Your task to perform on an android device: open chrome privacy settings Image 0: 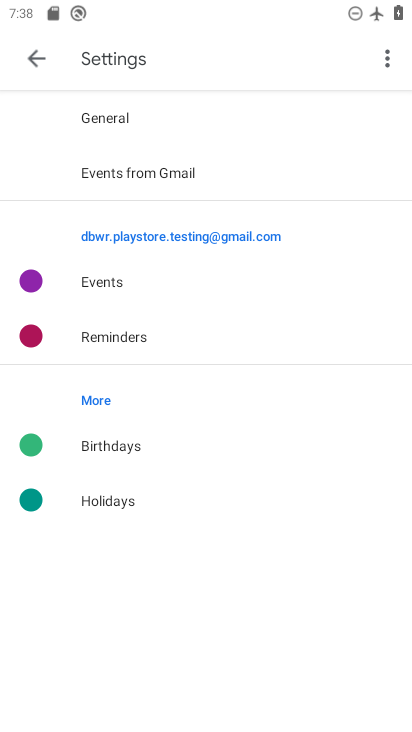
Step 0: drag from (275, 617) to (264, 517)
Your task to perform on an android device: open chrome privacy settings Image 1: 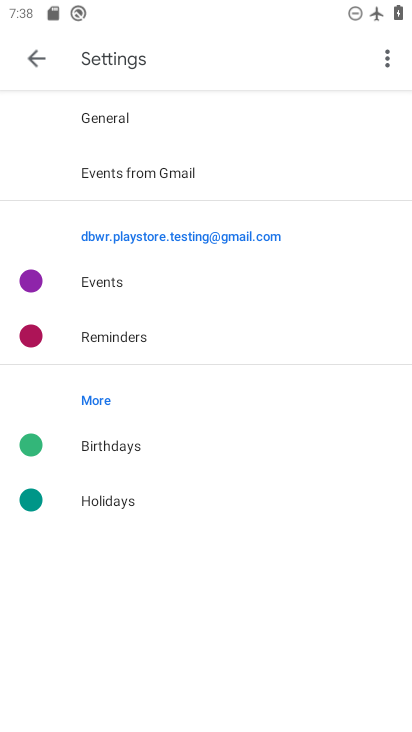
Step 1: press home button
Your task to perform on an android device: open chrome privacy settings Image 2: 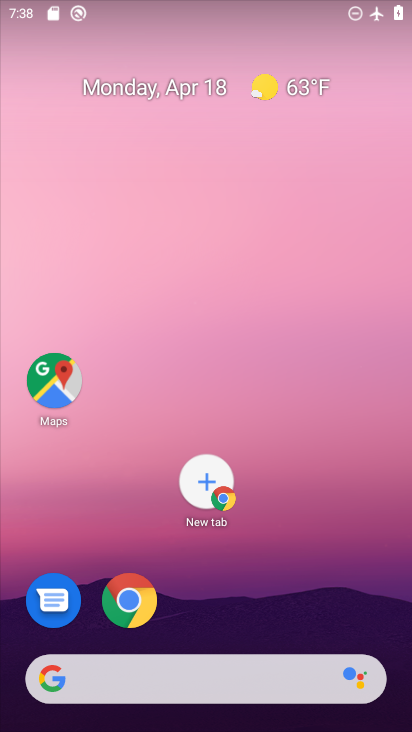
Step 2: click (135, 599)
Your task to perform on an android device: open chrome privacy settings Image 3: 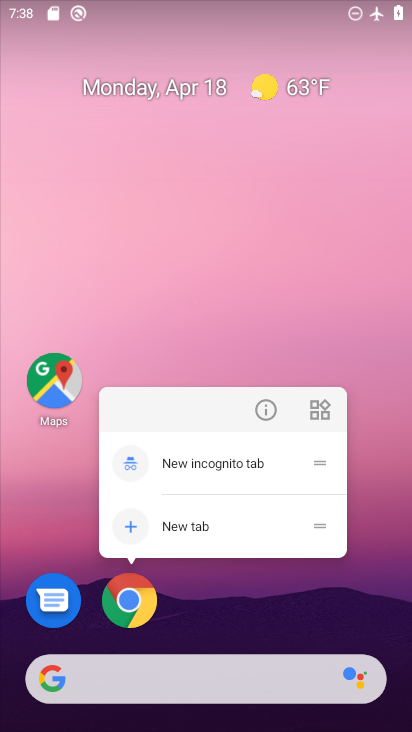
Step 3: click (138, 600)
Your task to perform on an android device: open chrome privacy settings Image 4: 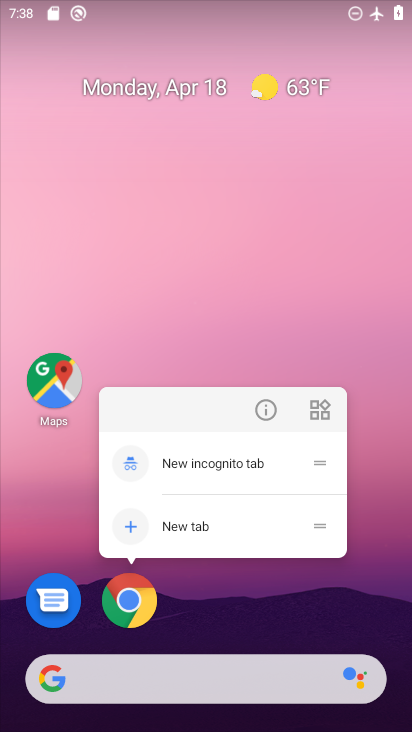
Step 4: click (138, 600)
Your task to perform on an android device: open chrome privacy settings Image 5: 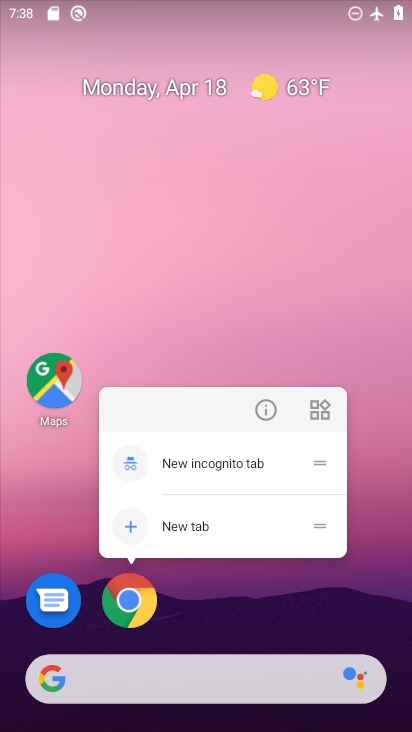
Step 5: click (138, 600)
Your task to perform on an android device: open chrome privacy settings Image 6: 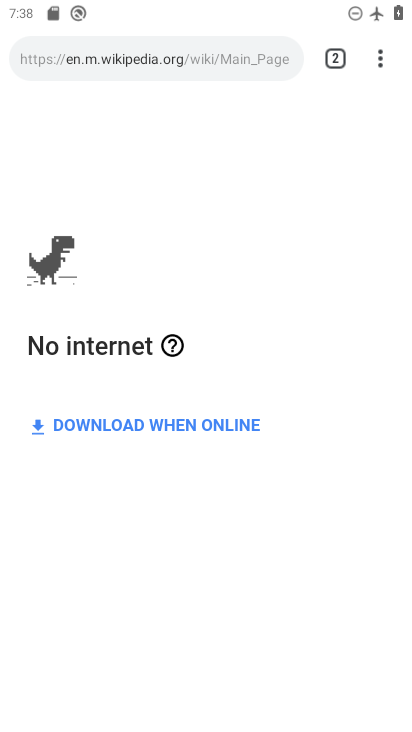
Step 6: click (386, 58)
Your task to perform on an android device: open chrome privacy settings Image 7: 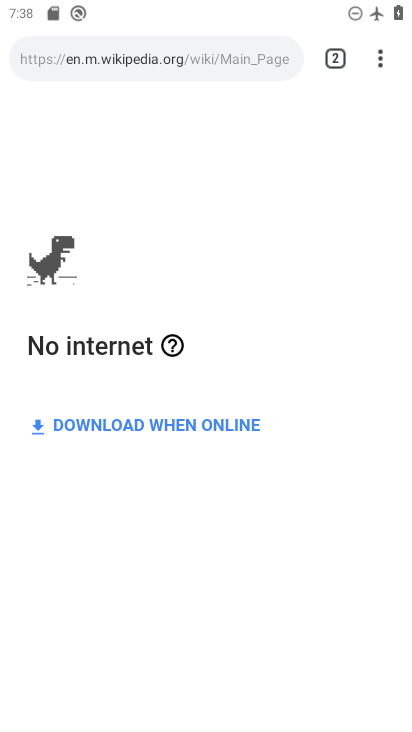
Step 7: click (378, 58)
Your task to perform on an android device: open chrome privacy settings Image 8: 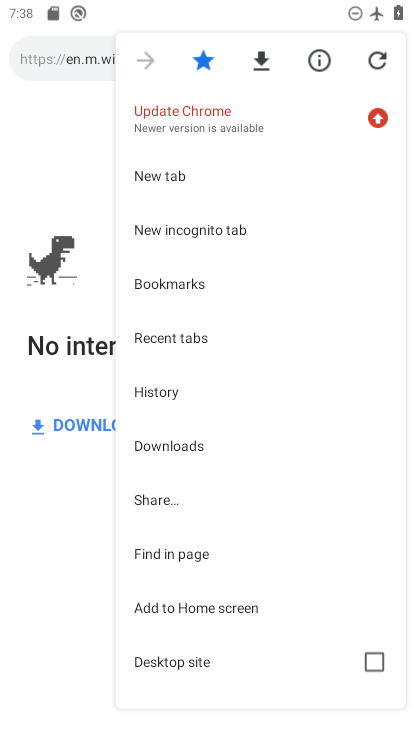
Step 8: drag from (290, 540) to (233, 68)
Your task to perform on an android device: open chrome privacy settings Image 9: 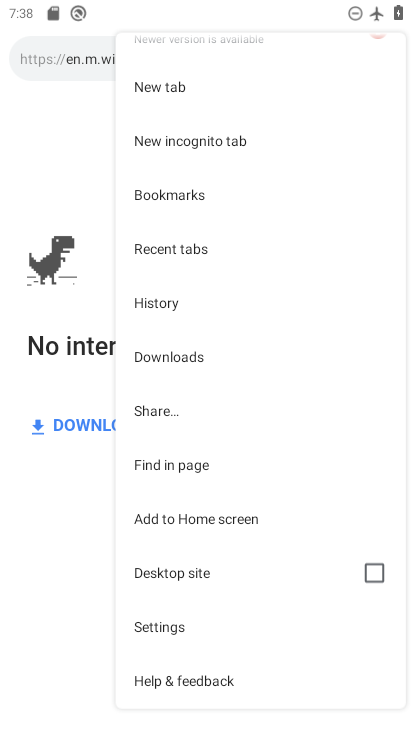
Step 9: click (174, 630)
Your task to perform on an android device: open chrome privacy settings Image 10: 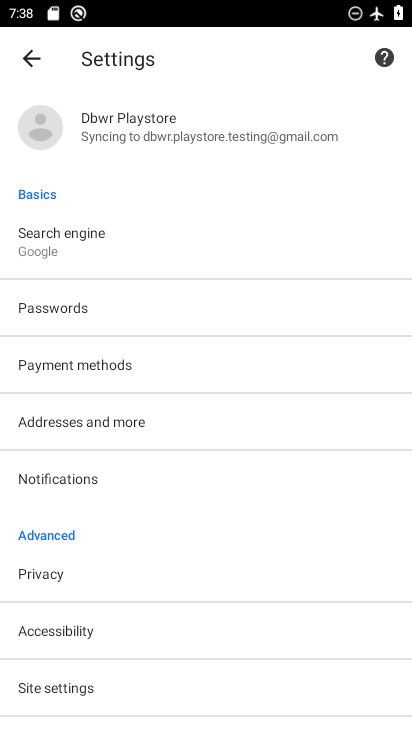
Step 10: click (53, 573)
Your task to perform on an android device: open chrome privacy settings Image 11: 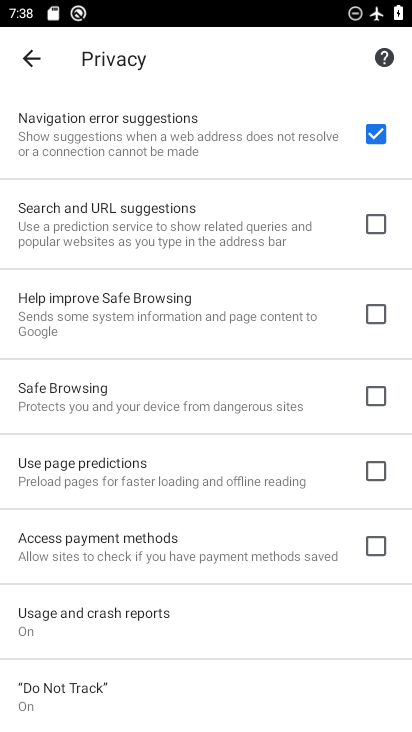
Step 11: task complete